Your task to perform on an android device: turn off airplane mode Image 0: 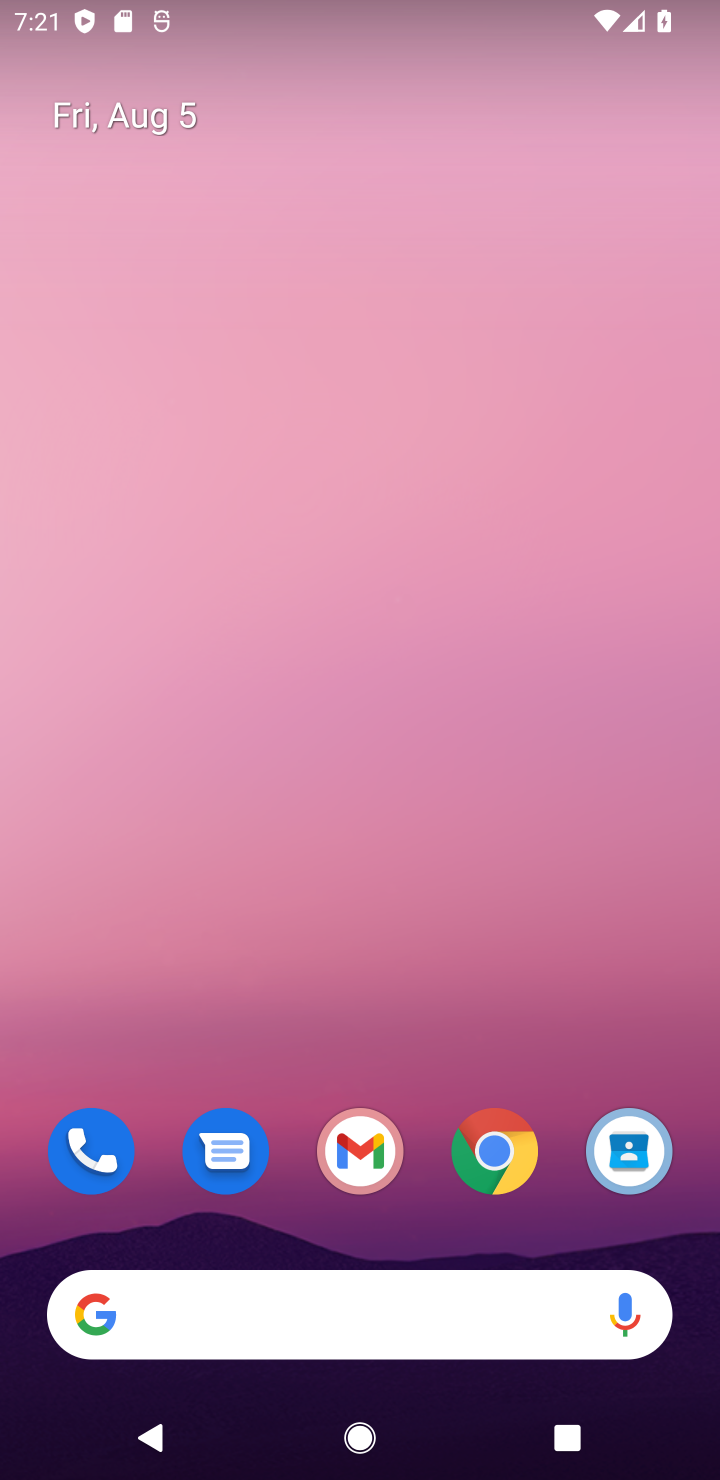
Step 0: drag from (420, 1170) to (307, 82)
Your task to perform on an android device: turn off airplane mode Image 1: 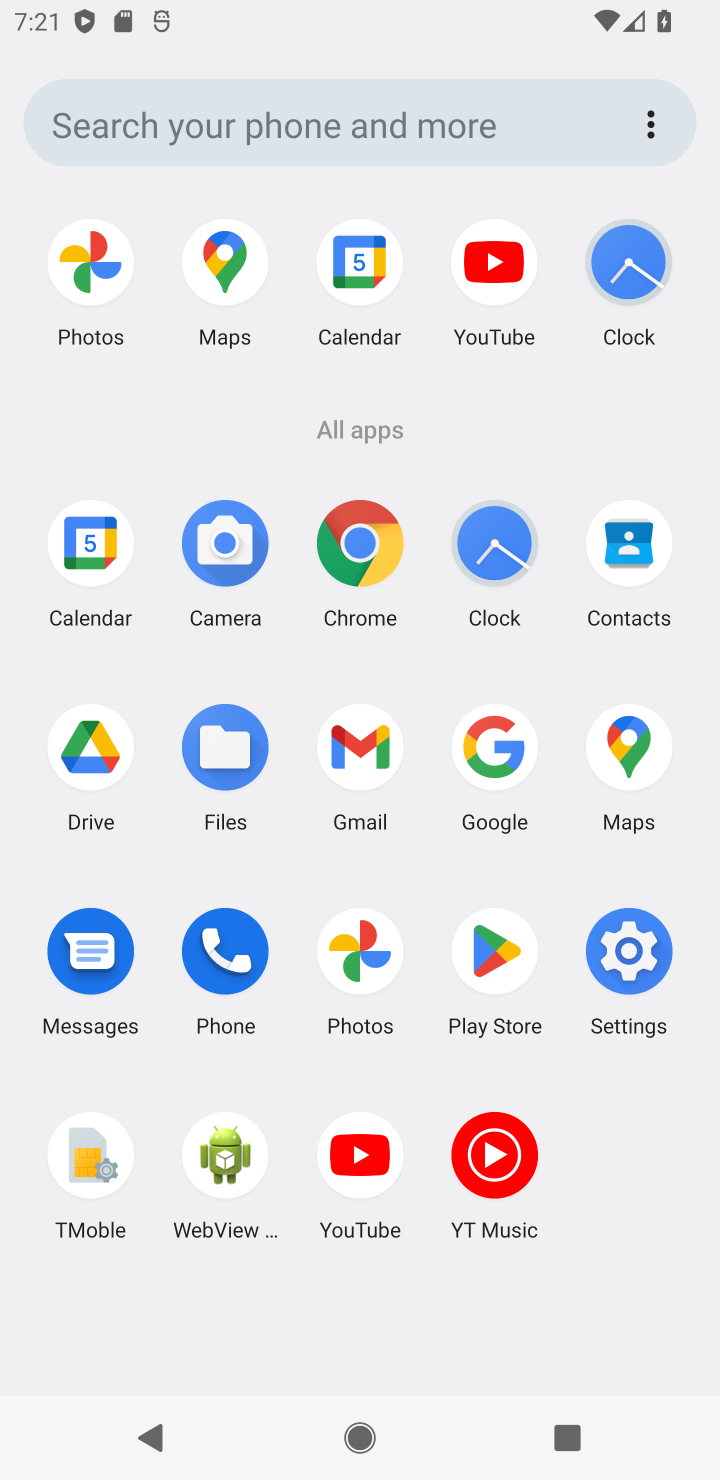
Step 1: click (627, 983)
Your task to perform on an android device: turn off airplane mode Image 2: 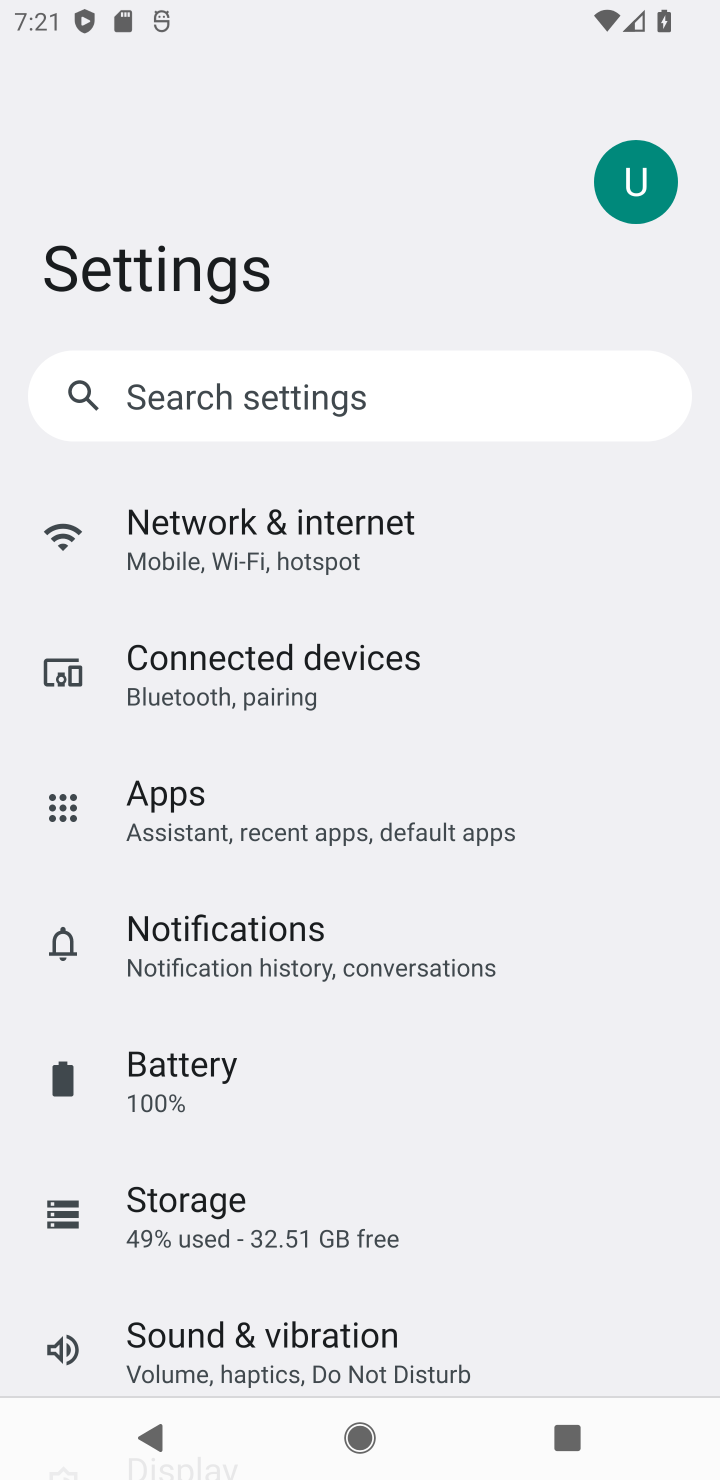
Step 2: click (253, 503)
Your task to perform on an android device: turn off airplane mode Image 3: 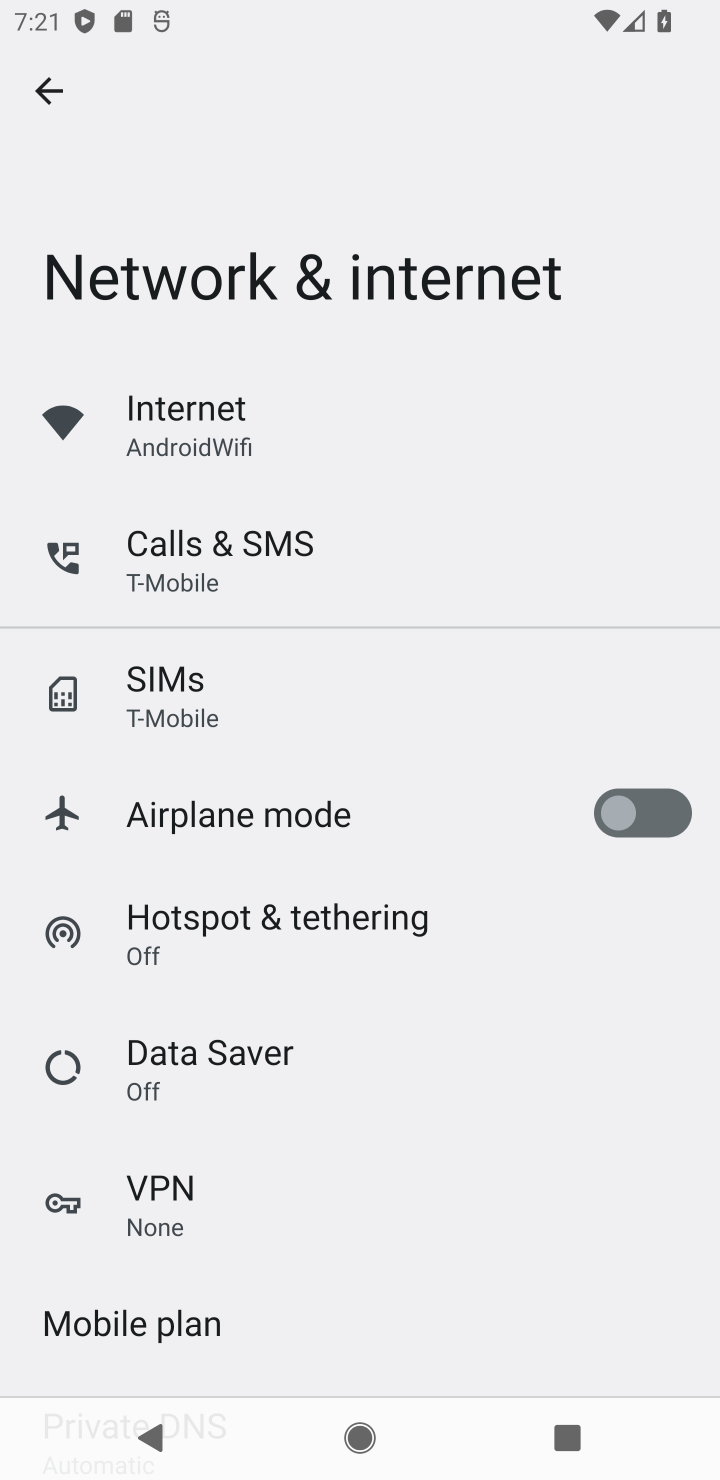
Step 3: task complete